Your task to perform on an android device: Is it going to rain today? Image 0: 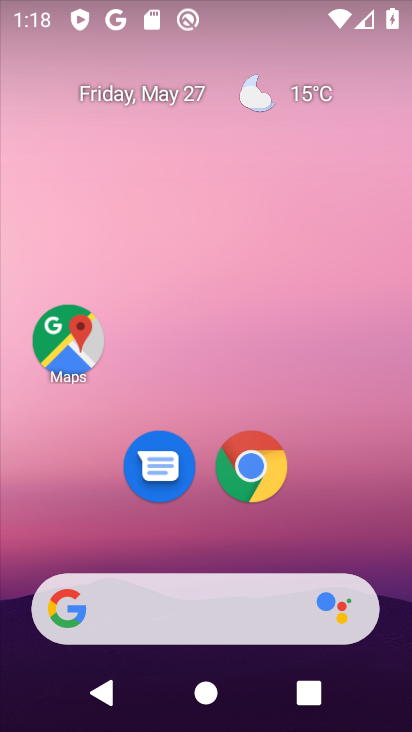
Step 0: click (281, 100)
Your task to perform on an android device: Is it going to rain today? Image 1: 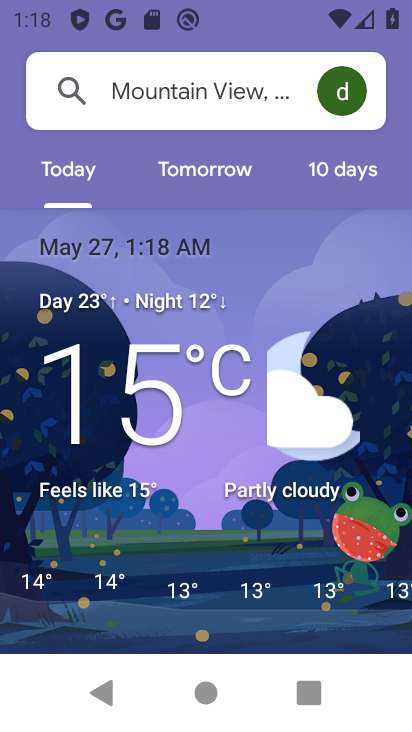
Step 1: task complete